Your task to perform on an android device: Open the calendar and show me this week's events Image 0: 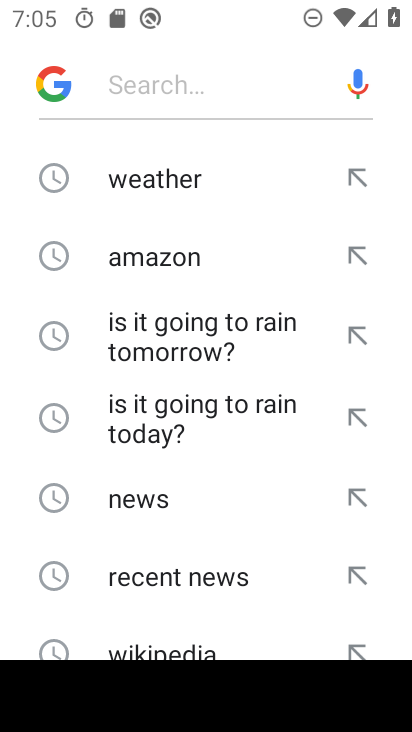
Step 0: press home button
Your task to perform on an android device: Open the calendar and show me this week's events Image 1: 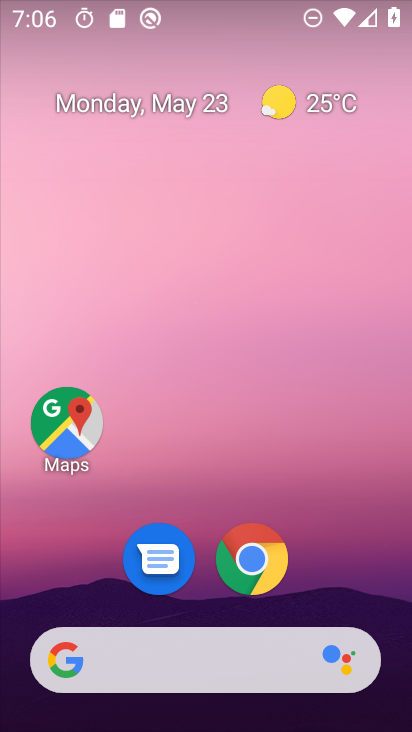
Step 1: drag from (401, 663) to (275, 22)
Your task to perform on an android device: Open the calendar and show me this week's events Image 2: 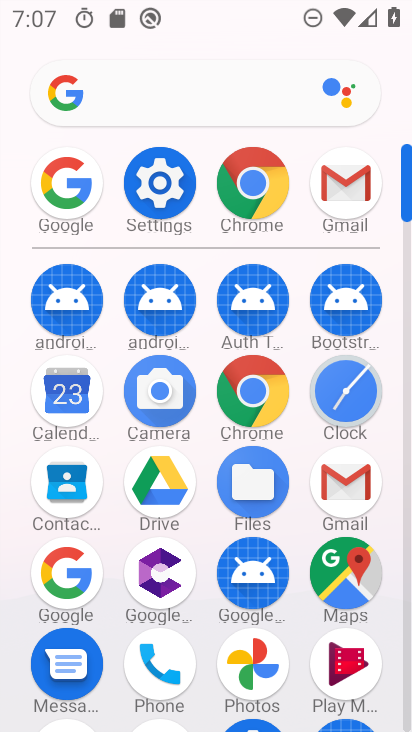
Step 2: click (43, 397)
Your task to perform on an android device: Open the calendar and show me this week's events Image 3: 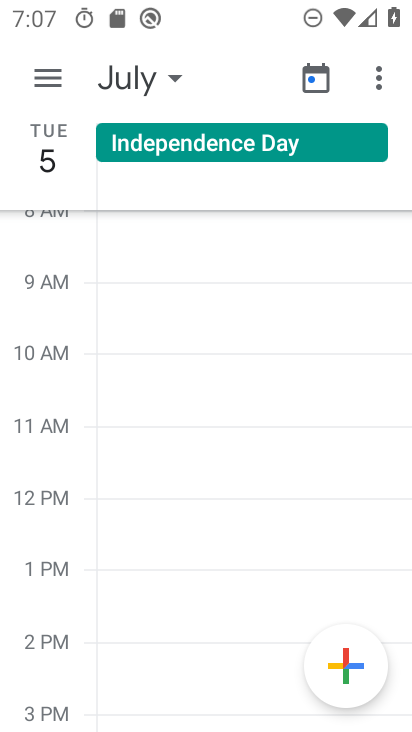
Step 3: task complete